Your task to perform on an android device: Go to privacy settings Image 0: 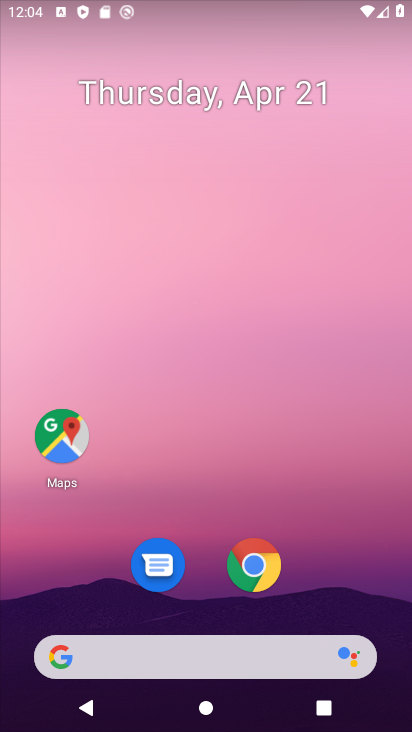
Step 0: drag from (321, 578) to (287, 93)
Your task to perform on an android device: Go to privacy settings Image 1: 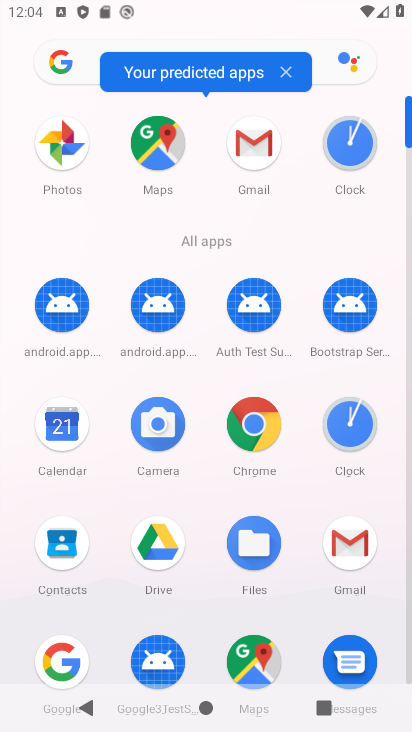
Step 1: drag from (298, 488) to (310, 183)
Your task to perform on an android device: Go to privacy settings Image 2: 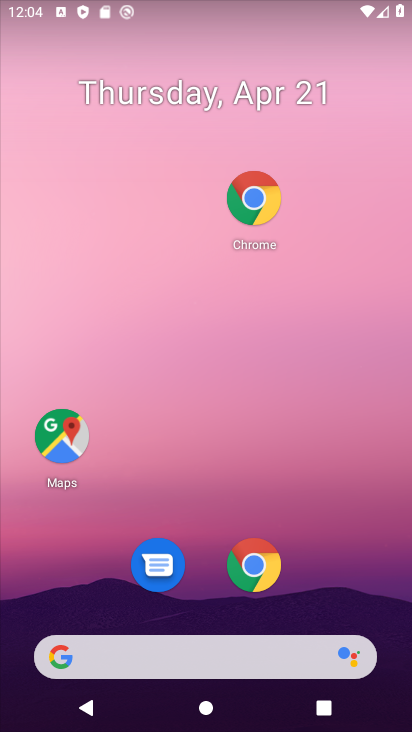
Step 2: drag from (246, 459) to (258, 63)
Your task to perform on an android device: Go to privacy settings Image 3: 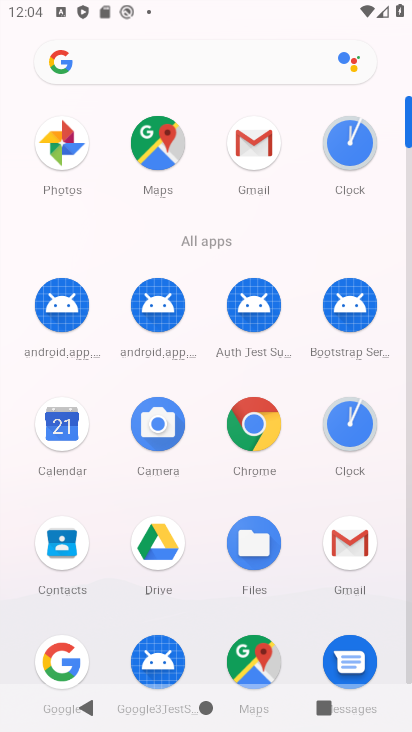
Step 3: drag from (214, 392) to (221, 168)
Your task to perform on an android device: Go to privacy settings Image 4: 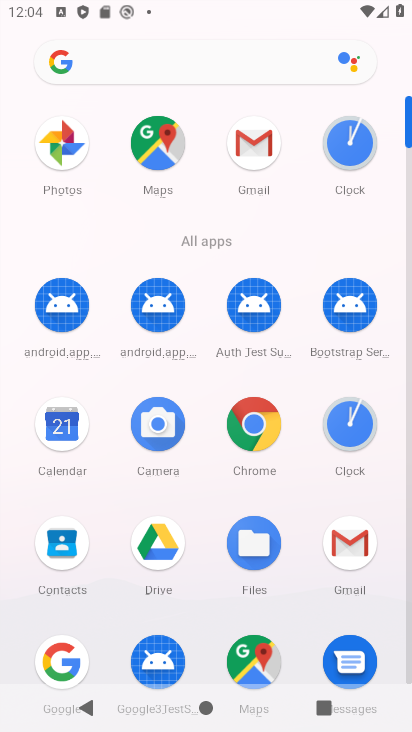
Step 4: drag from (205, 629) to (229, 293)
Your task to perform on an android device: Go to privacy settings Image 5: 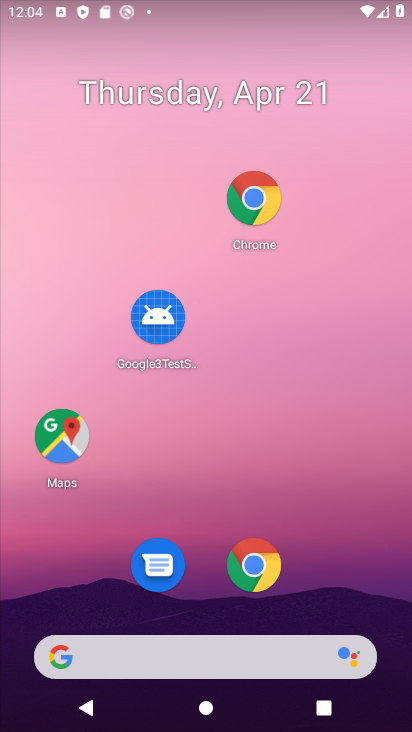
Step 5: drag from (204, 607) to (224, 84)
Your task to perform on an android device: Go to privacy settings Image 6: 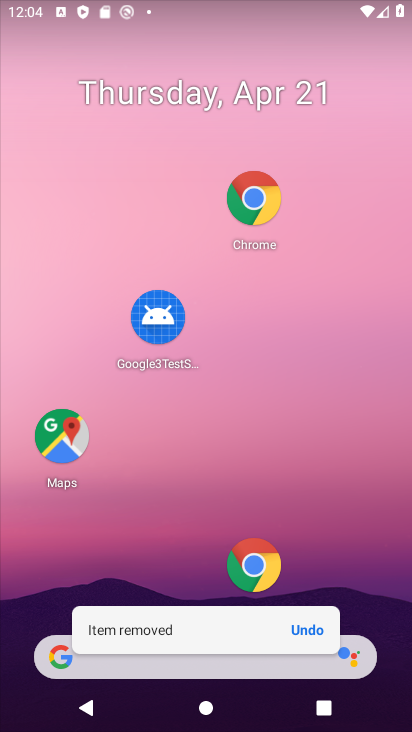
Step 6: drag from (308, 410) to (0, 395)
Your task to perform on an android device: Go to privacy settings Image 7: 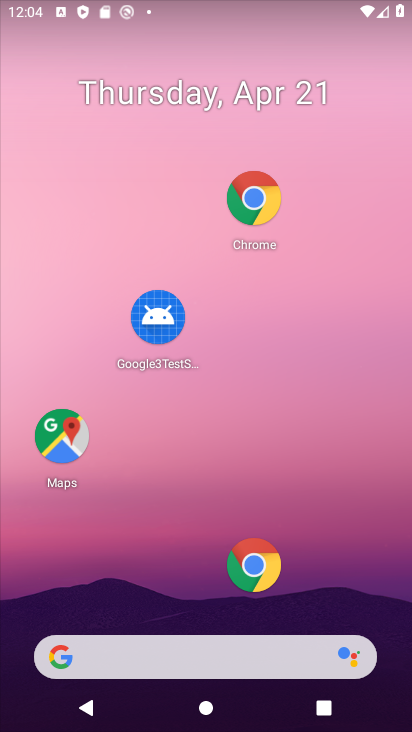
Step 7: drag from (181, 571) to (218, 22)
Your task to perform on an android device: Go to privacy settings Image 8: 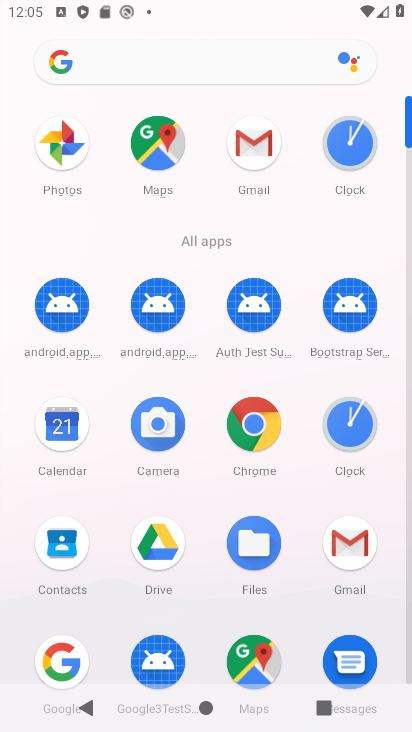
Step 8: drag from (334, 405) to (382, 100)
Your task to perform on an android device: Go to privacy settings Image 9: 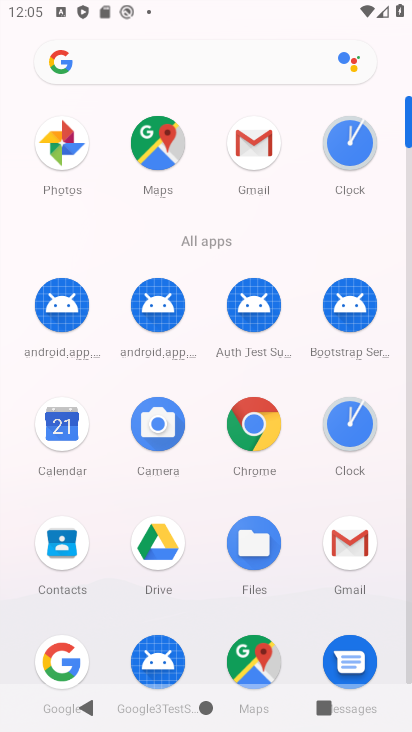
Step 9: drag from (213, 558) to (238, 245)
Your task to perform on an android device: Go to privacy settings Image 10: 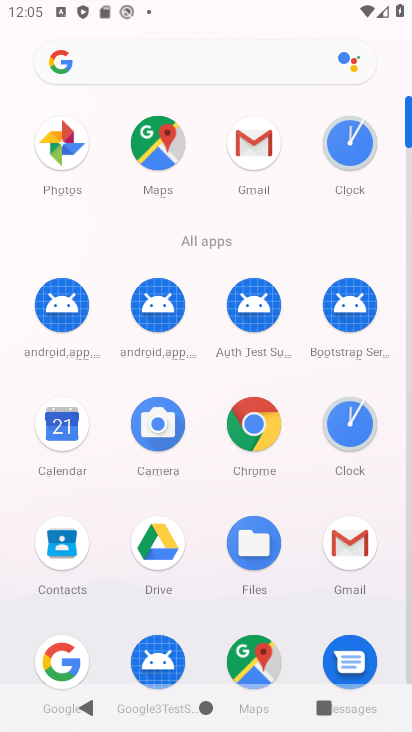
Step 10: drag from (207, 623) to (257, 276)
Your task to perform on an android device: Go to privacy settings Image 11: 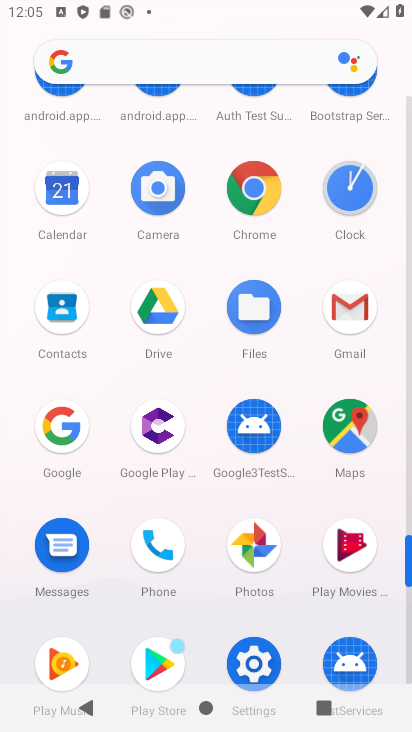
Step 11: click (253, 663)
Your task to perform on an android device: Go to privacy settings Image 12: 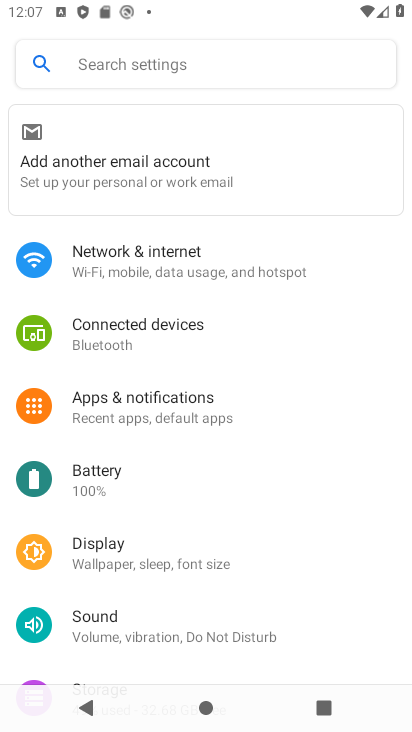
Step 12: drag from (184, 595) to (224, 324)
Your task to perform on an android device: Go to privacy settings Image 13: 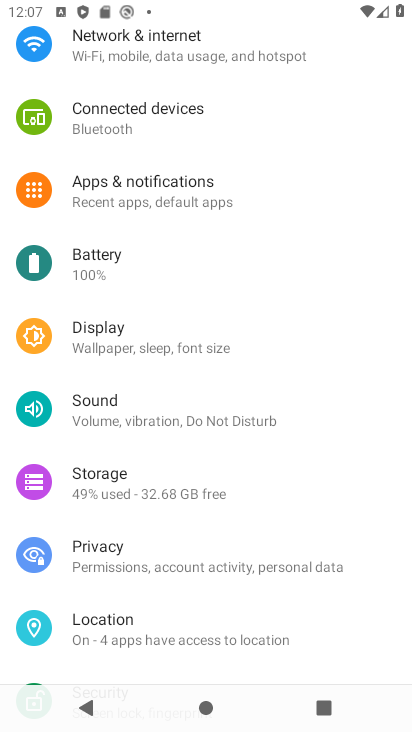
Step 13: click (141, 552)
Your task to perform on an android device: Go to privacy settings Image 14: 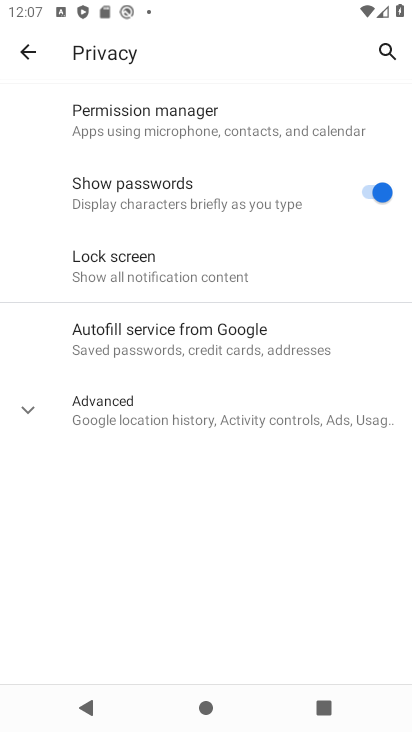
Step 14: task complete